Your task to perform on an android device: Go to accessibility settings Image 0: 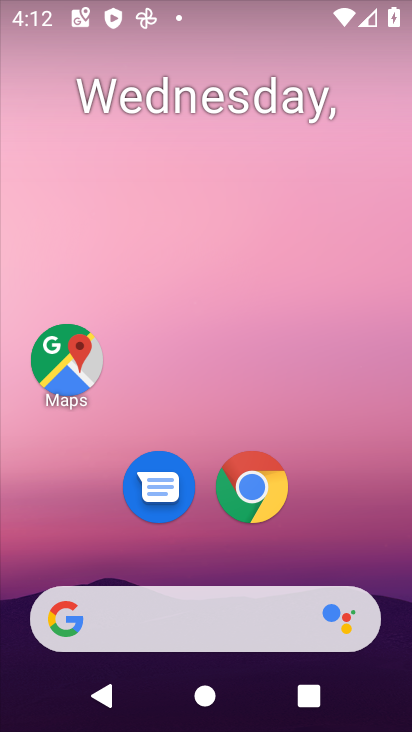
Step 0: drag from (365, 550) to (369, 218)
Your task to perform on an android device: Go to accessibility settings Image 1: 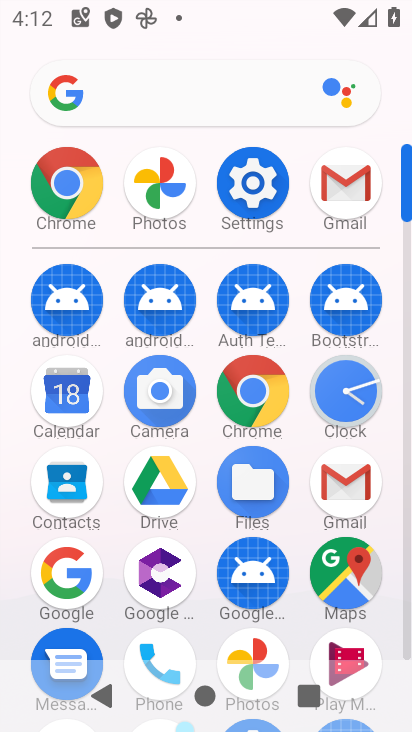
Step 1: click (255, 209)
Your task to perform on an android device: Go to accessibility settings Image 2: 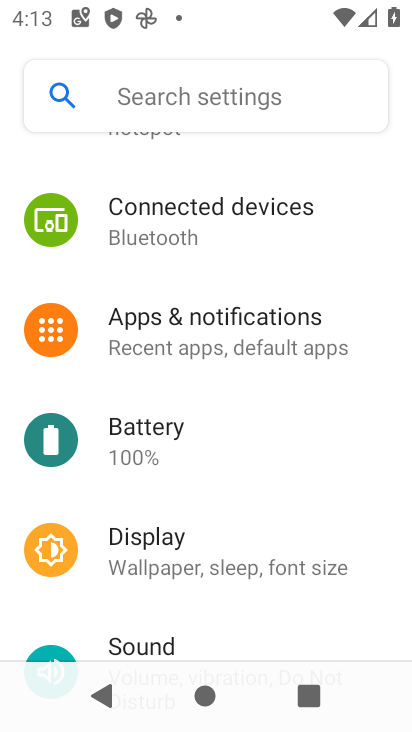
Step 2: drag from (361, 496) to (359, 418)
Your task to perform on an android device: Go to accessibility settings Image 3: 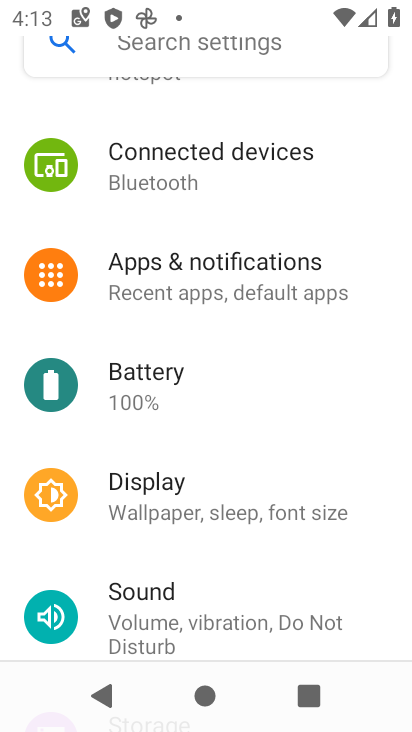
Step 3: drag from (357, 549) to (348, 448)
Your task to perform on an android device: Go to accessibility settings Image 4: 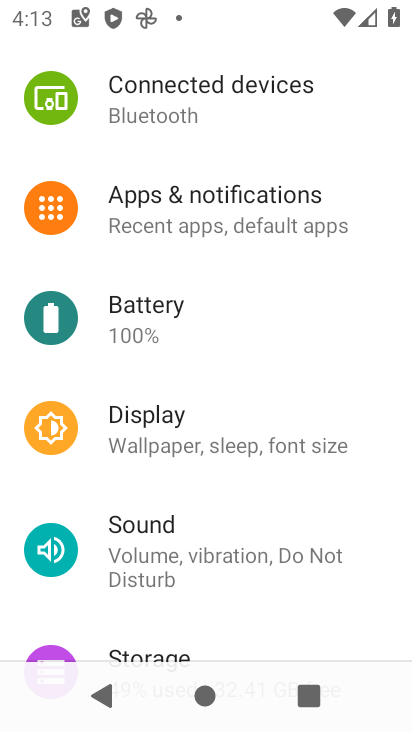
Step 4: drag from (342, 596) to (349, 466)
Your task to perform on an android device: Go to accessibility settings Image 5: 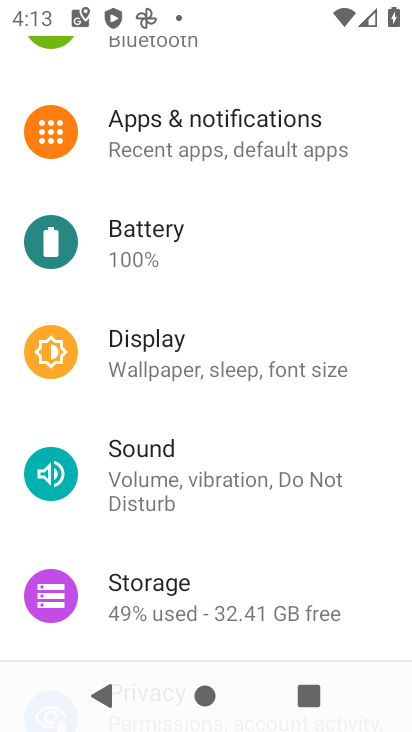
Step 5: drag from (357, 596) to (355, 463)
Your task to perform on an android device: Go to accessibility settings Image 6: 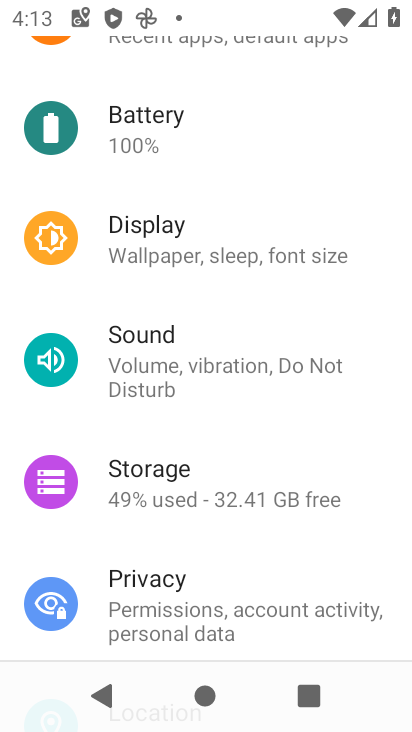
Step 6: drag from (362, 583) to (361, 453)
Your task to perform on an android device: Go to accessibility settings Image 7: 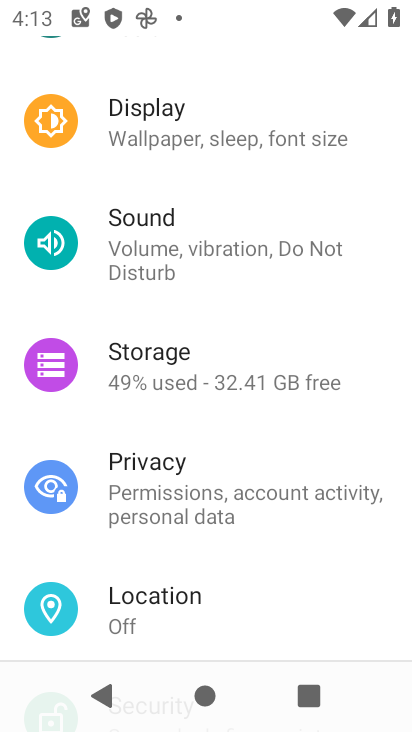
Step 7: drag from (377, 591) to (369, 504)
Your task to perform on an android device: Go to accessibility settings Image 8: 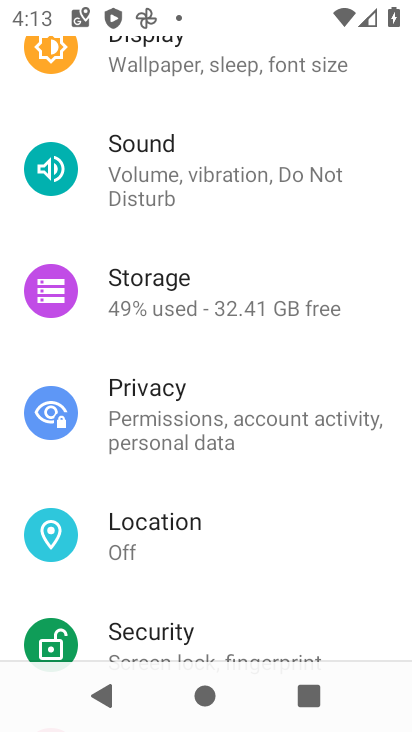
Step 8: drag from (361, 601) to (365, 435)
Your task to perform on an android device: Go to accessibility settings Image 9: 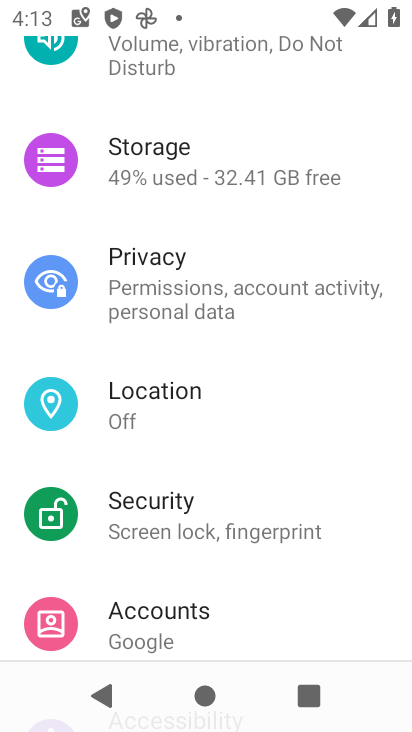
Step 9: drag from (360, 586) to (353, 442)
Your task to perform on an android device: Go to accessibility settings Image 10: 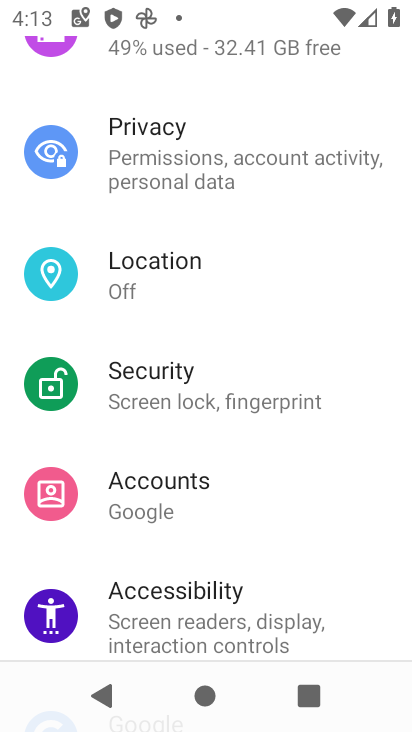
Step 10: drag from (355, 569) to (356, 471)
Your task to perform on an android device: Go to accessibility settings Image 11: 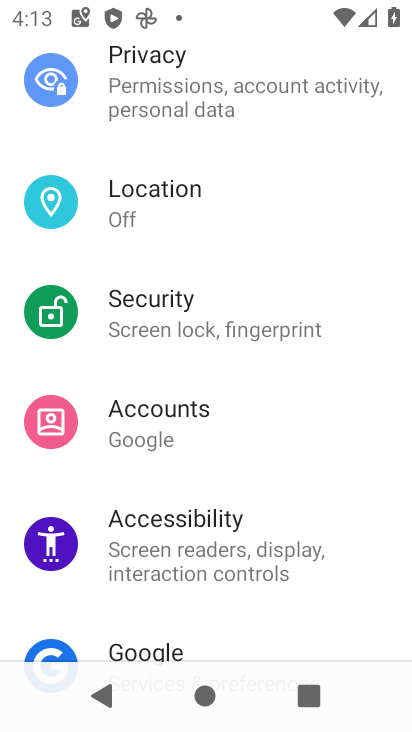
Step 11: click (309, 531)
Your task to perform on an android device: Go to accessibility settings Image 12: 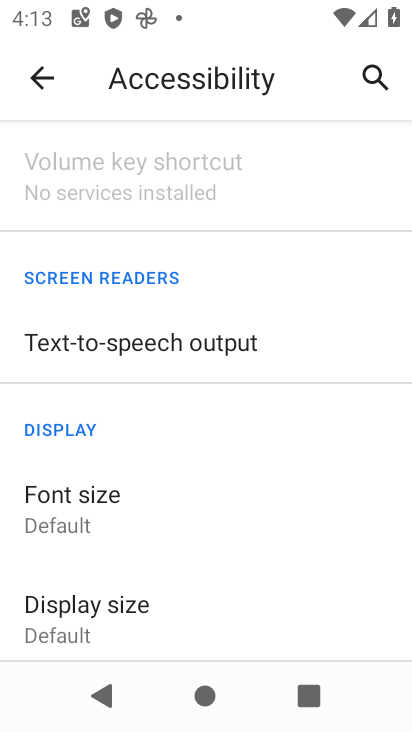
Step 12: task complete